Your task to perform on an android device: Go to wifi settings Image 0: 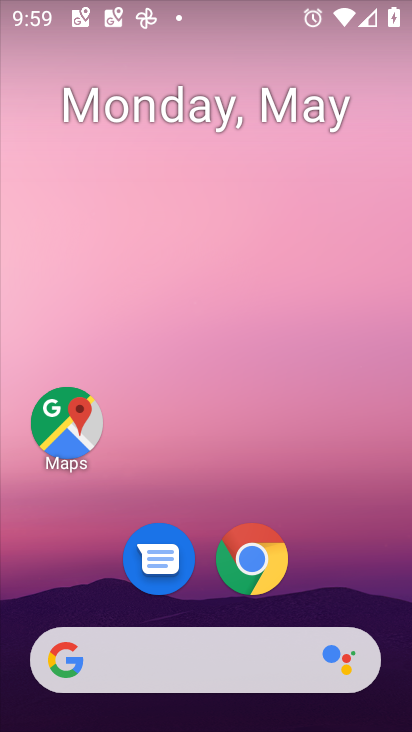
Step 0: drag from (395, 641) to (285, 62)
Your task to perform on an android device: Go to wifi settings Image 1: 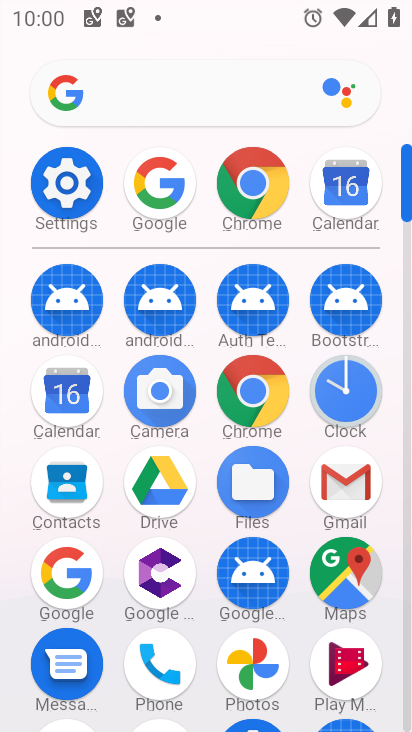
Step 1: click (65, 176)
Your task to perform on an android device: Go to wifi settings Image 2: 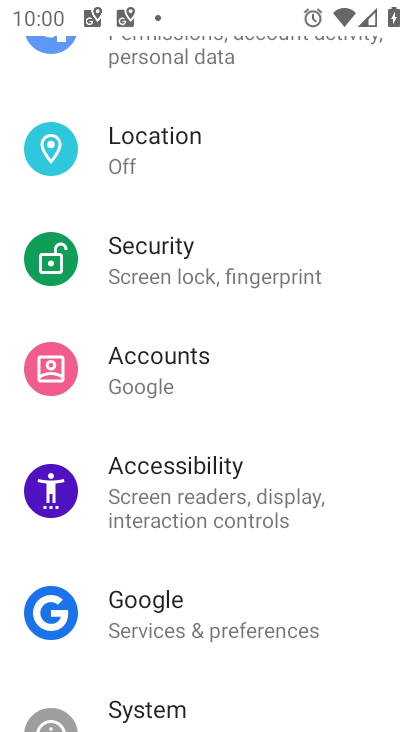
Step 2: drag from (165, 166) to (237, 602)
Your task to perform on an android device: Go to wifi settings Image 3: 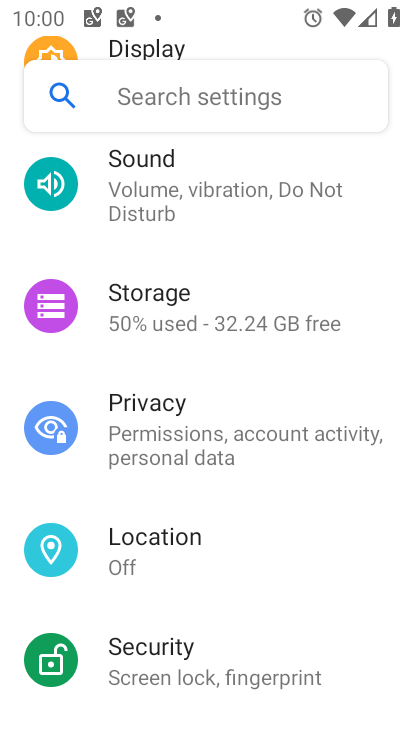
Step 3: drag from (100, 207) to (138, 619)
Your task to perform on an android device: Go to wifi settings Image 4: 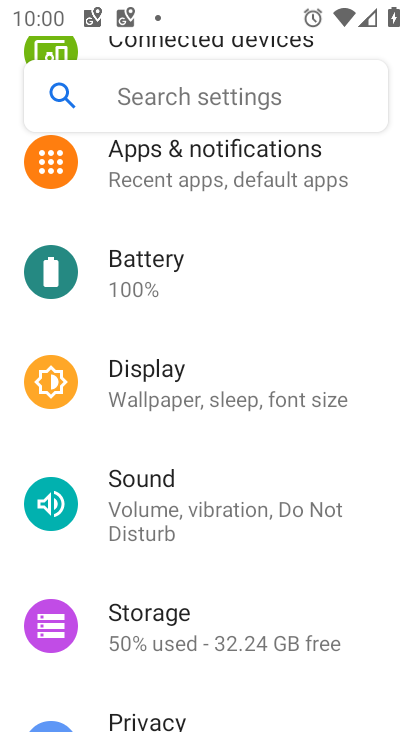
Step 4: drag from (175, 208) to (196, 544)
Your task to perform on an android device: Go to wifi settings Image 5: 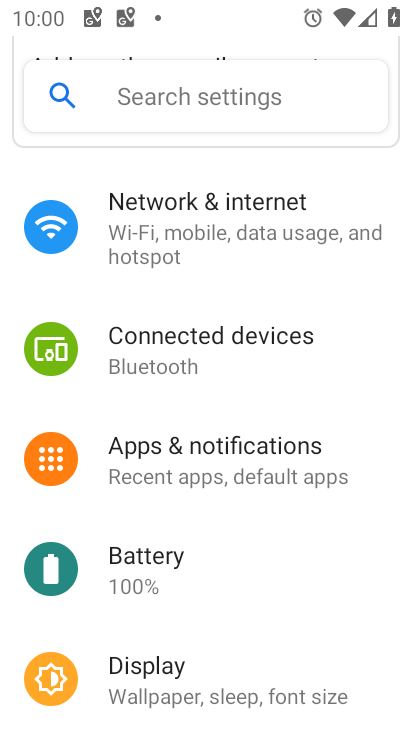
Step 5: click (201, 247)
Your task to perform on an android device: Go to wifi settings Image 6: 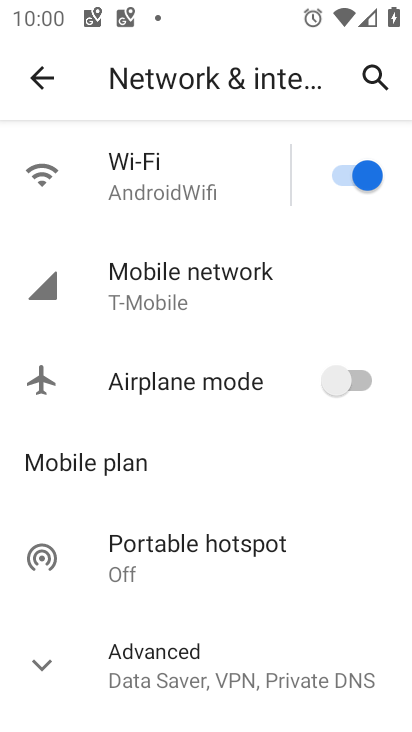
Step 6: click (157, 194)
Your task to perform on an android device: Go to wifi settings Image 7: 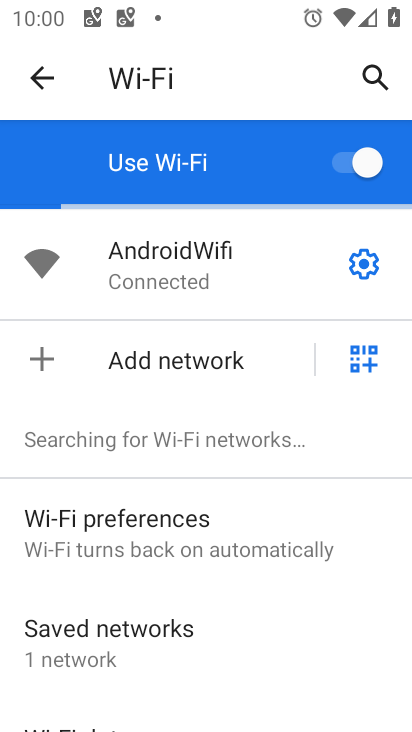
Step 7: task complete